Your task to perform on an android device: see creations saved in the google photos Image 0: 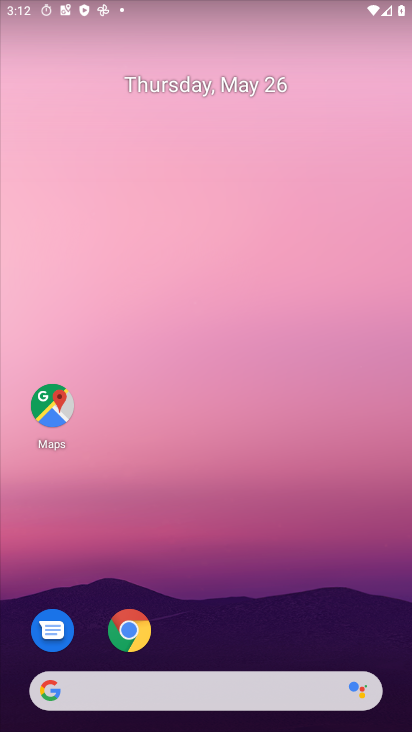
Step 0: drag from (260, 571) to (285, 90)
Your task to perform on an android device: see creations saved in the google photos Image 1: 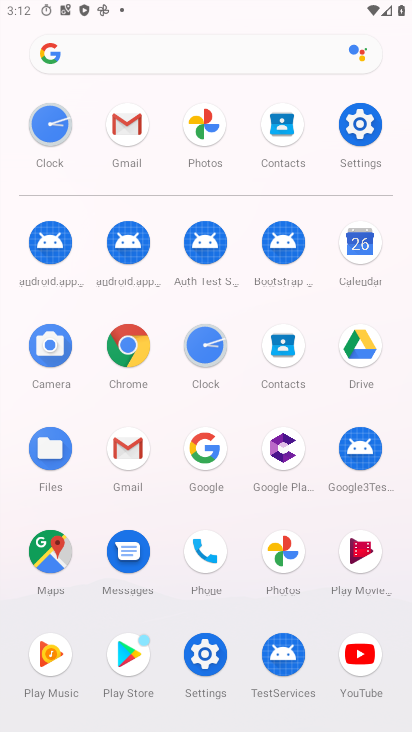
Step 1: click (201, 132)
Your task to perform on an android device: see creations saved in the google photos Image 2: 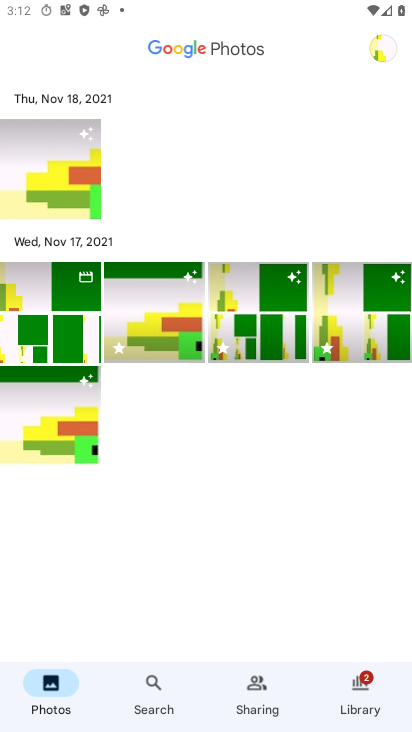
Step 2: click (384, 43)
Your task to perform on an android device: see creations saved in the google photos Image 3: 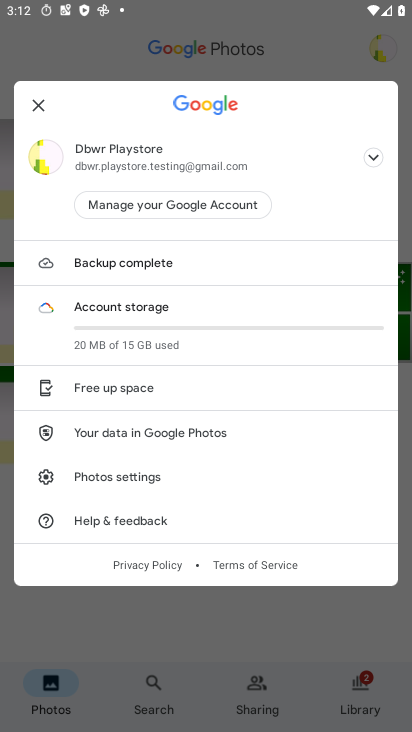
Step 3: click (35, 101)
Your task to perform on an android device: see creations saved in the google photos Image 4: 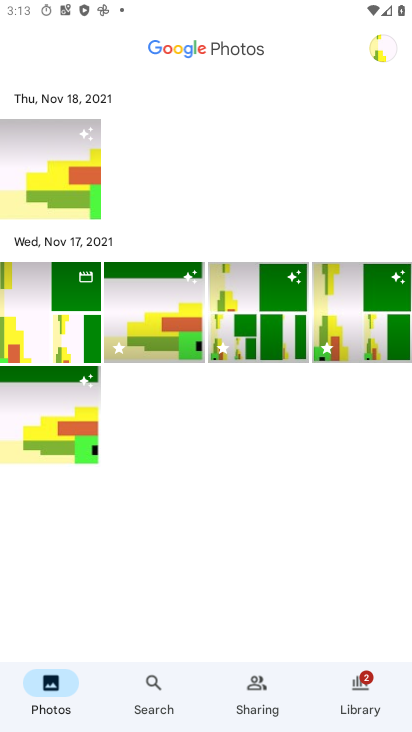
Step 4: task complete